Your task to perform on an android device: set the stopwatch Image 0: 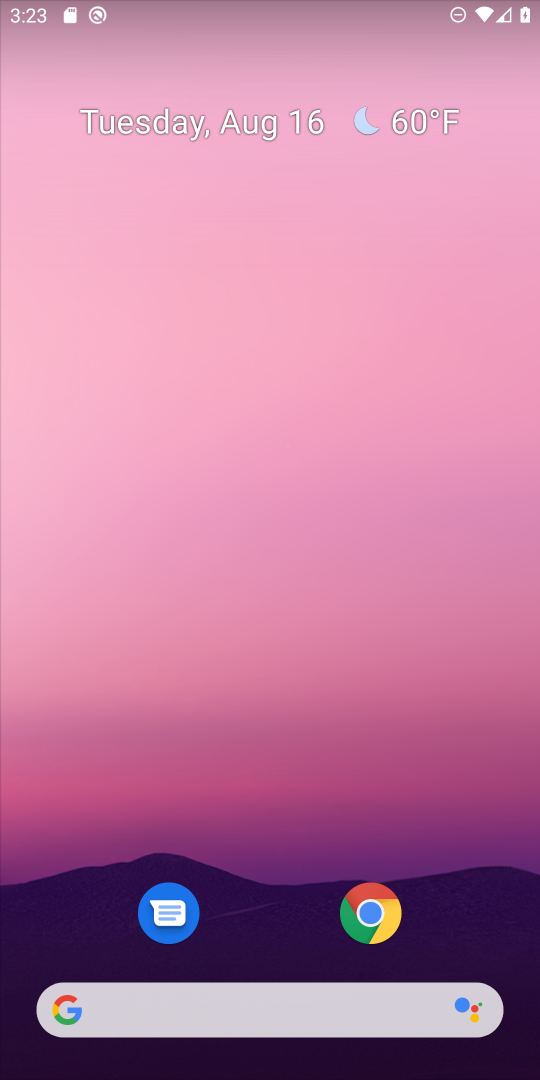
Step 0: drag from (467, 942) to (456, 54)
Your task to perform on an android device: set the stopwatch Image 1: 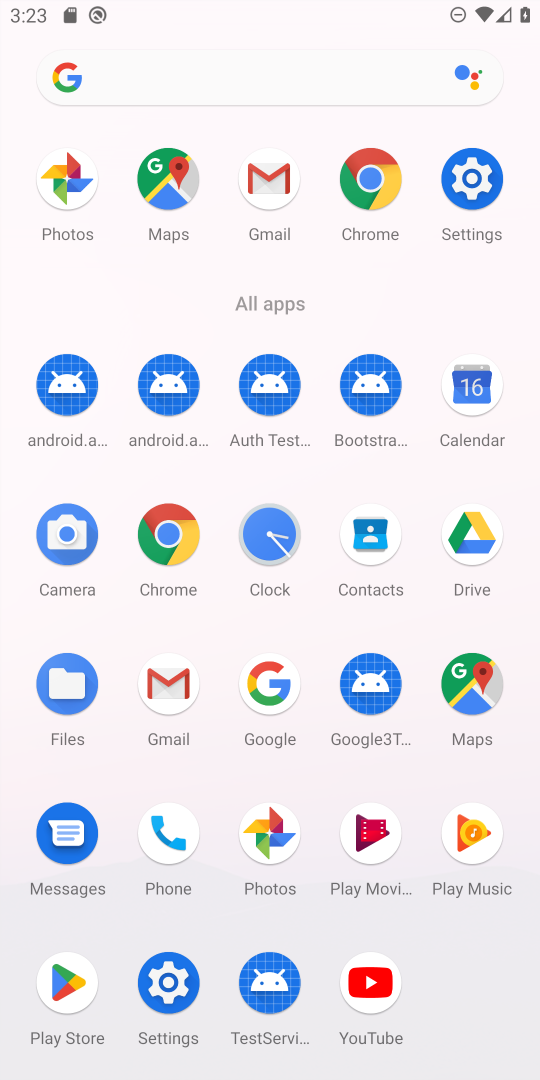
Step 1: click (270, 529)
Your task to perform on an android device: set the stopwatch Image 2: 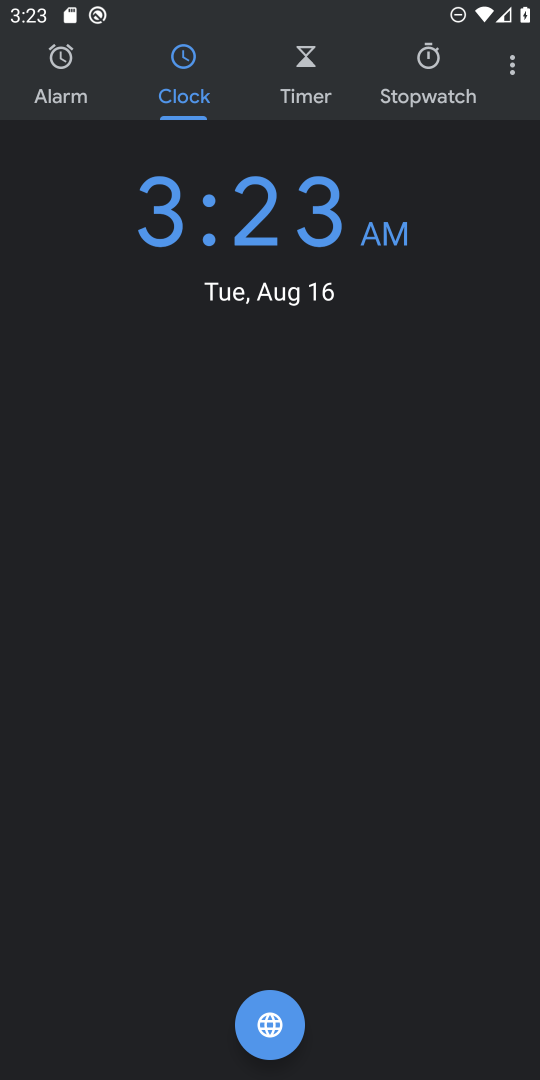
Step 2: click (429, 82)
Your task to perform on an android device: set the stopwatch Image 3: 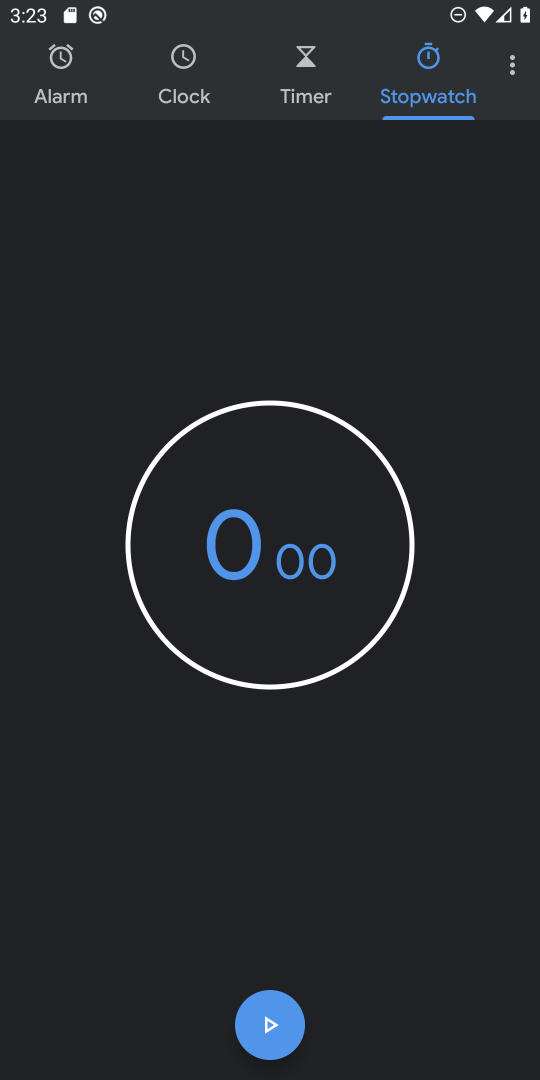
Step 3: task complete